Your task to perform on an android device: snooze an email in the gmail app Image 0: 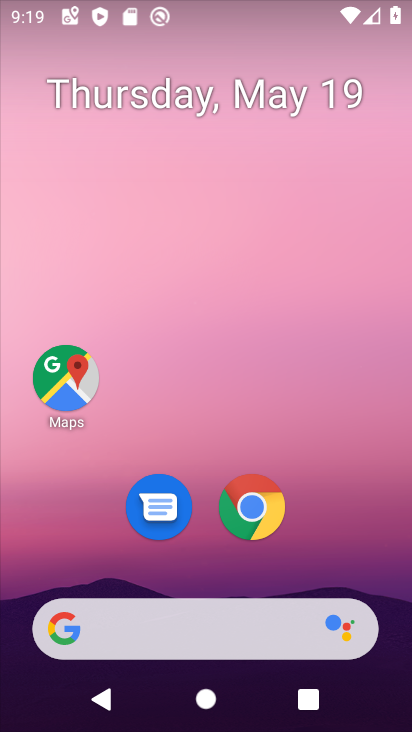
Step 0: drag from (389, 608) to (309, 123)
Your task to perform on an android device: snooze an email in the gmail app Image 1: 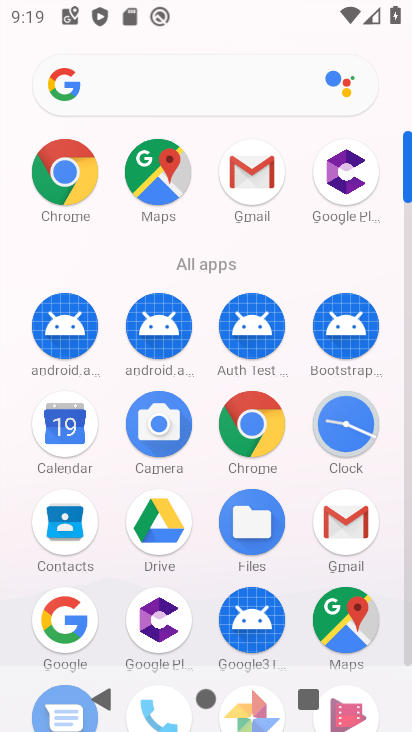
Step 1: click (408, 635)
Your task to perform on an android device: snooze an email in the gmail app Image 2: 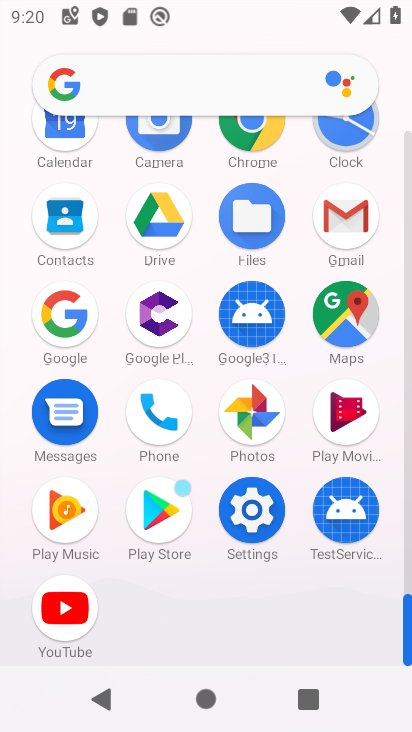
Step 2: click (343, 216)
Your task to perform on an android device: snooze an email in the gmail app Image 3: 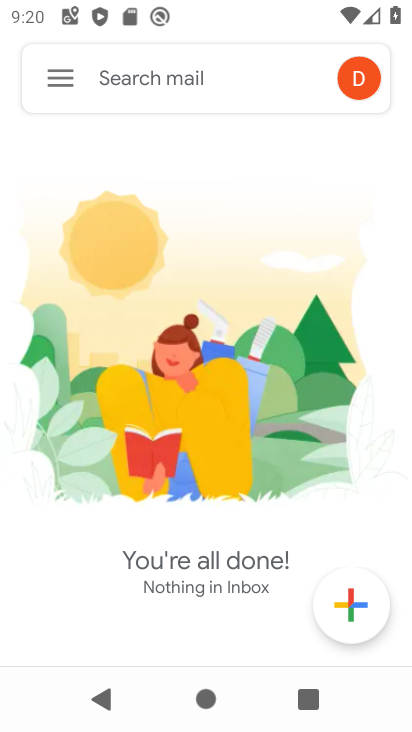
Step 3: click (59, 74)
Your task to perform on an android device: snooze an email in the gmail app Image 4: 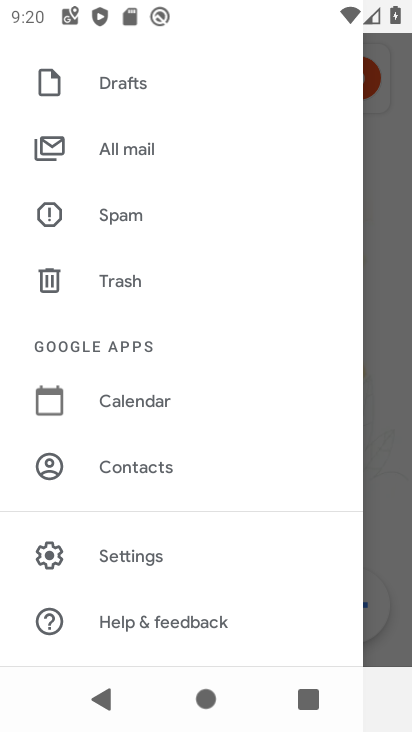
Step 4: click (130, 148)
Your task to perform on an android device: snooze an email in the gmail app Image 5: 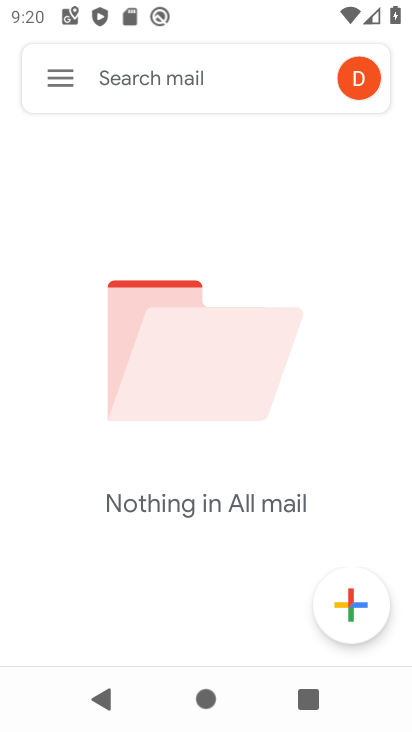
Step 5: task complete